Your task to perform on an android device: change notification settings in the gmail app Image 0: 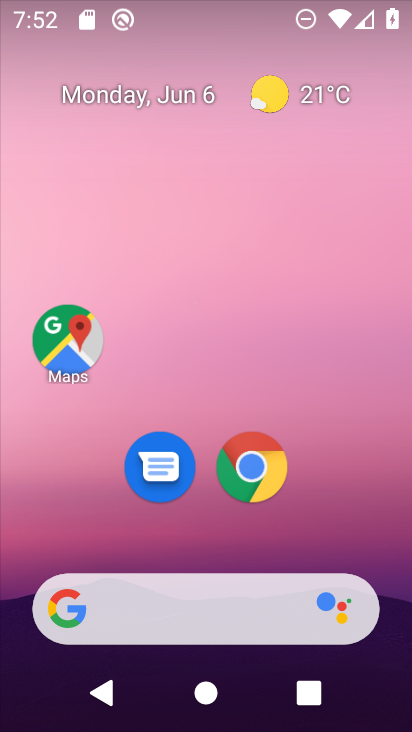
Step 0: drag from (358, 515) to (360, 178)
Your task to perform on an android device: change notification settings in the gmail app Image 1: 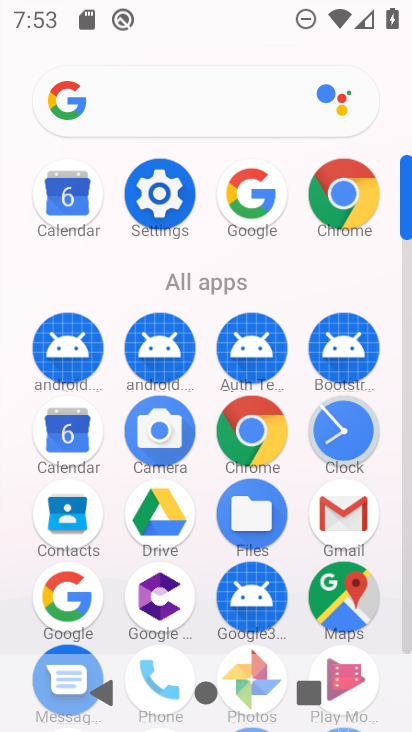
Step 1: click (346, 521)
Your task to perform on an android device: change notification settings in the gmail app Image 2: 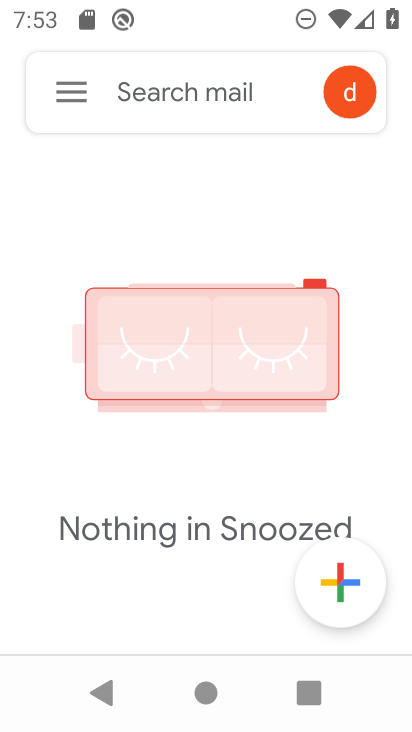
Step 2: click (70, 108)
Your task to perform on an android device: change notification settings in the gmail app Image 3: 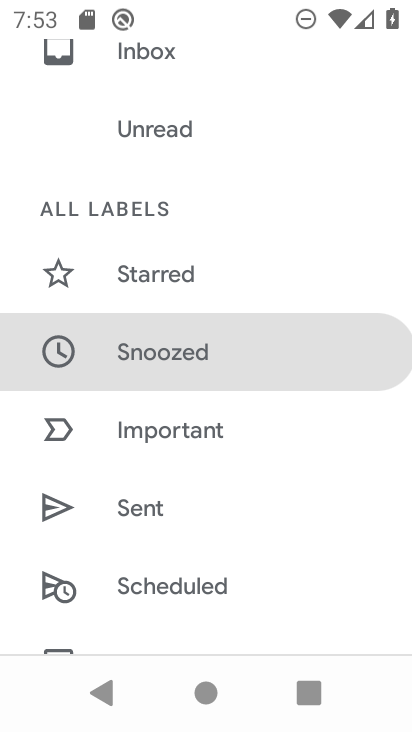
Step 3: drag from (369, 218) to (355, 353)
Your task to perform on an android device: change notification settings in the gmail app Image 4: 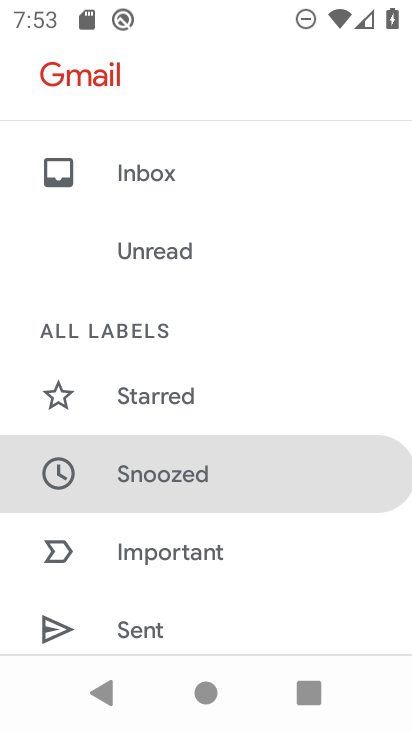
Step 4: drag from (331, 246) to (335, 390)
Your task to perform on an android device: change notification settings in the gmail app Image 5: 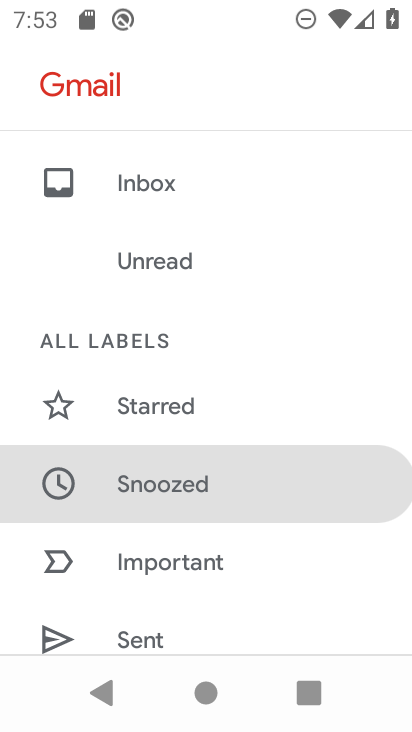
Step 5: drag from (286, 358) to (302, 234)
Your task to perform on an android device: change notification settings in the gmail app Image 6: 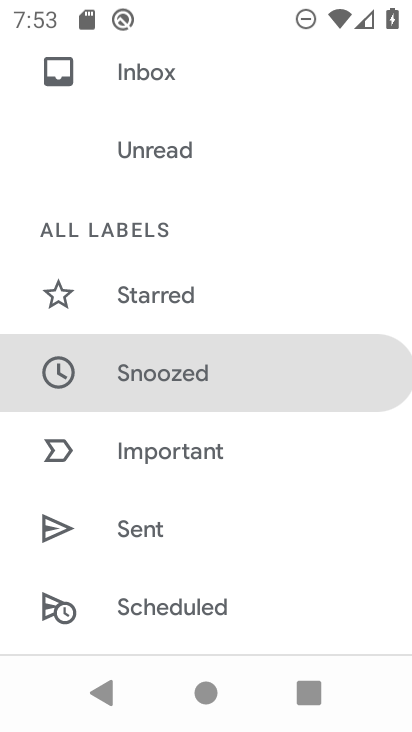
Step 6: drag from (322, 479) to (353, 288)
Your task to perform on an android device: change notification settings in the gmail app Image 7: 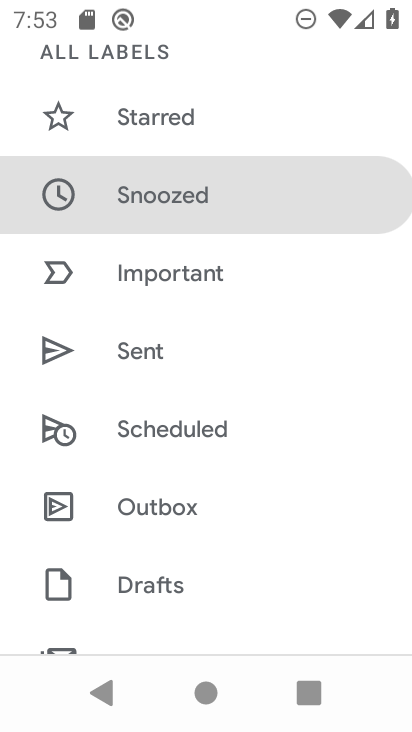
Step 7: drag from (345, 431) to (309, 219)
Your task to perform on an android device: change notification settings in the gmail app Image 8: 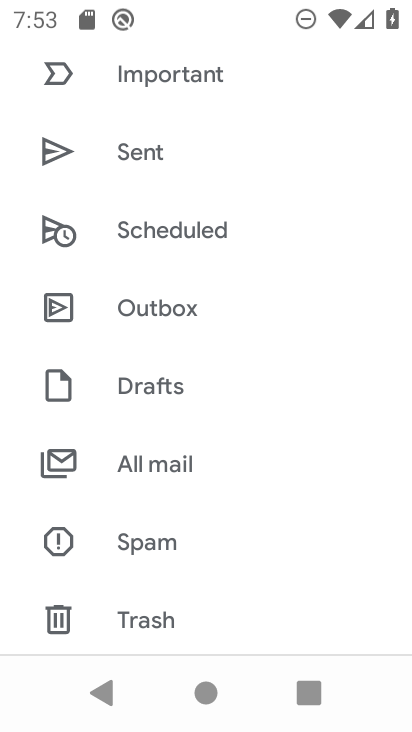
Step 8: drag from (315, 447) to (307, 285)
Your task to perform on an android device: change notification settings in the gmail app Image 9: 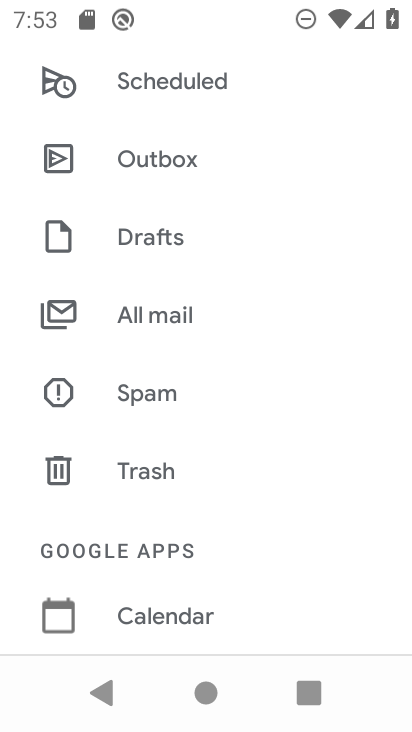
Step 9: drag from (335, 486) to (320, 286)
Your task to perform on an android device: change notification settings in the gmail app Image 10: 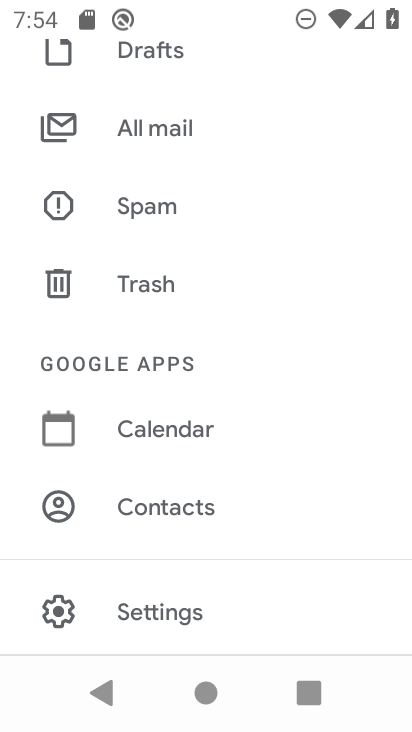
Step 10: click (177, 615)
Your task to perform on an android device: change notification settings in the gmail app Image 11: 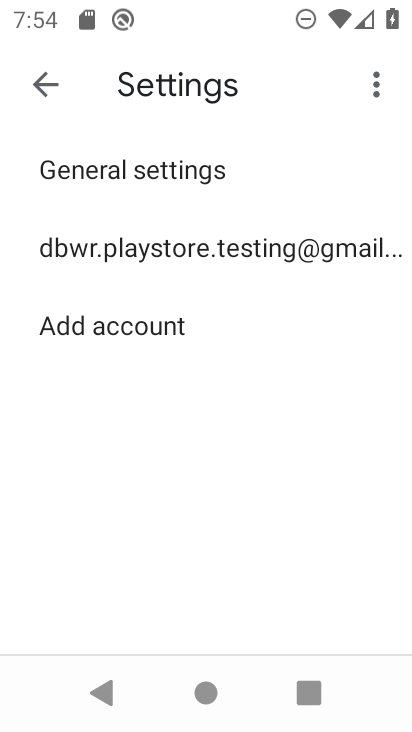
Step 11: click (186, 266)
Your task to perform on an android device: change notification settings in the gmail app Image 12: 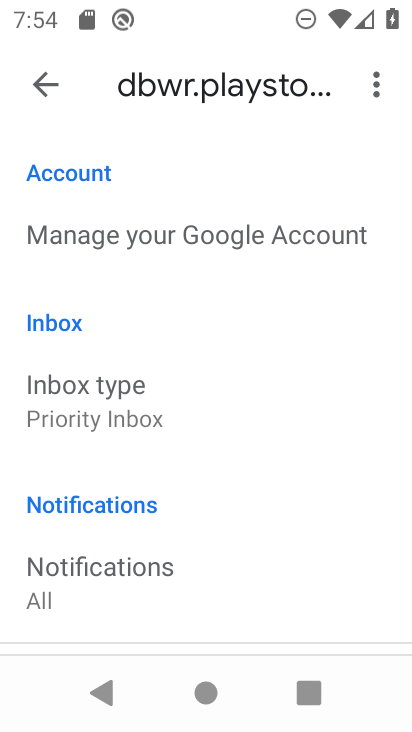
Step 12: drag from (306, 501) to (322, 336)
Your task to perform on an android device: change notification settings in the gmail app Image 13: 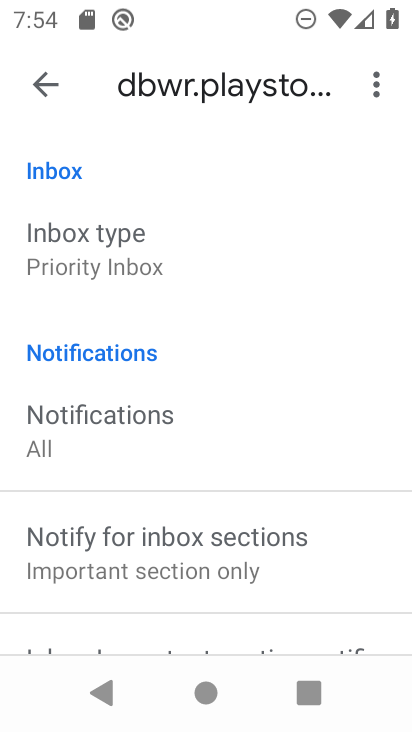
Step 13: drag from (340, 416) to (337, 265)
Your task to perform on an android device: change notification settings in the gmail app Image 14: 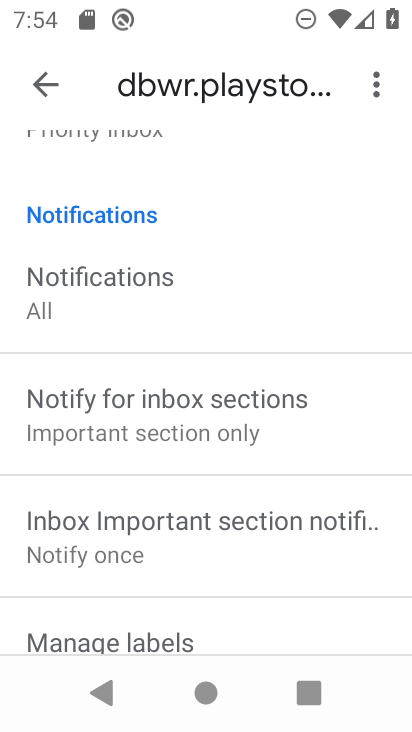
Step 14: drag from (341, 462) to (353, 343)
Your task to perform on an android device: change notification settings in the gmail app Image 15: 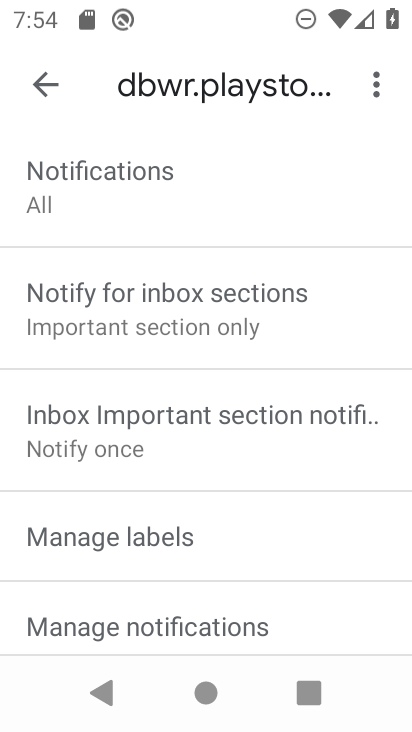
Step 15: drag from (338, 517) to (348, 389)
Your task to perform on an android device: change notification settings in the gmail app Image 16: 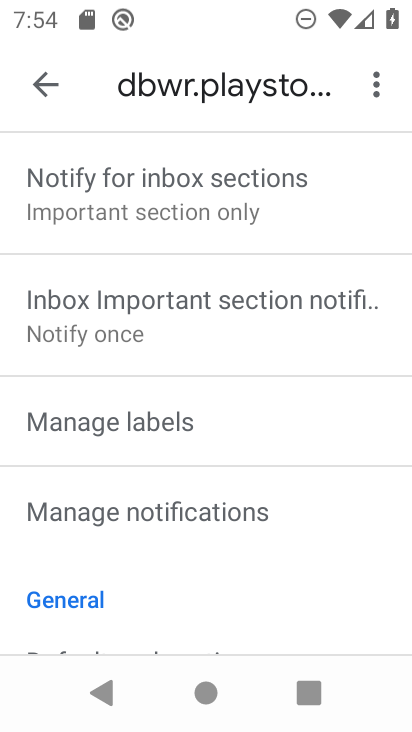
Step 16: drag from (346, 523) to (342, 413)
Your task to perform on an android device: change notification settings in the gmail app Image 17: 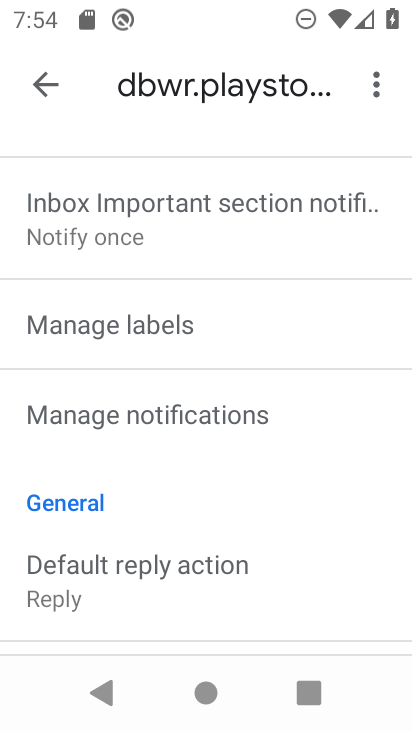
Step 17: click (287, 420)
Your task to perform on an android device: change notification settings in the gmail app Image 18: 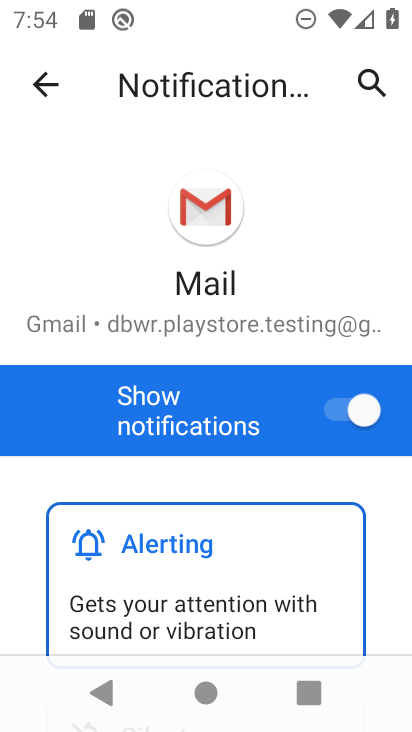
Step 18: click (342, 432)
Your task to perform on an android device: change notification settings in the gmail app Image 19: 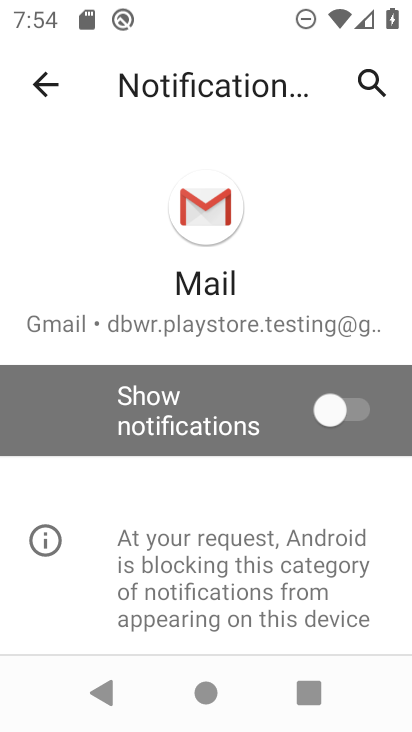
Step 19: task complete